Your task to perform on an android device: Open my contact list Image 0: 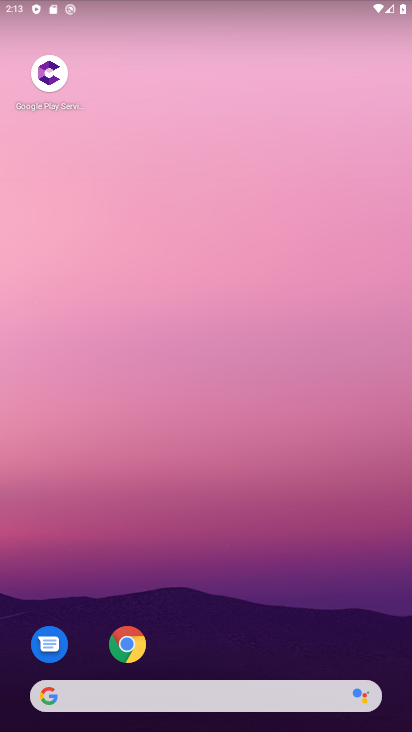
Step 0: drag from (227, 607) to (247, 81)
Your task to perform on an android device: Open my contact list Image 1: 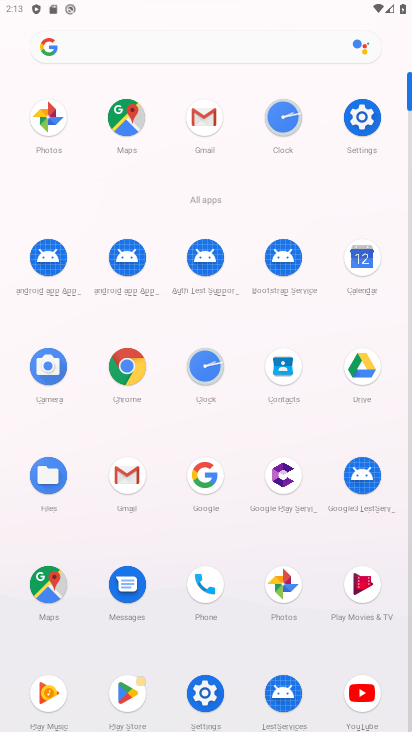
Step 1: click (278, 355)
Your task to perform on an android device: Open my contact list Image 2: 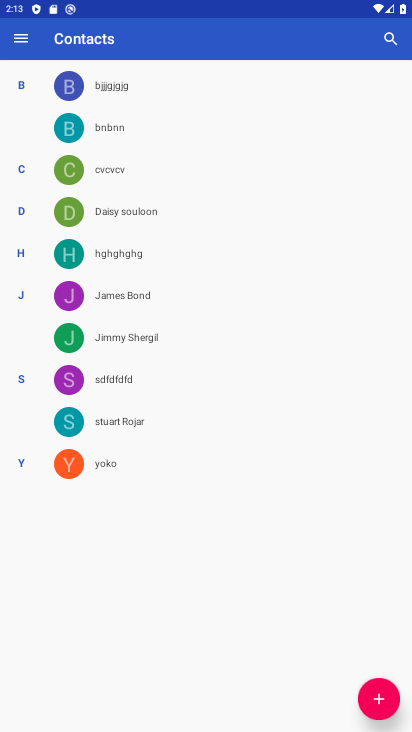
Step 2: task complete